Your task to perform on an android device: Do I have any events this weekend? Image 0: 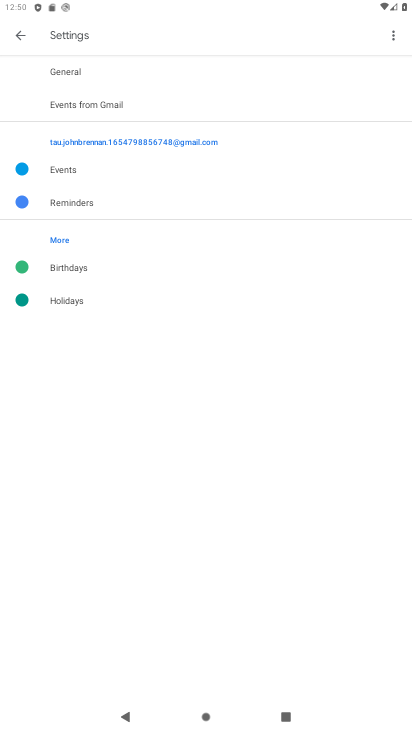
Step 0: press home button
Your task to perform on an android device: Do I have any events this weekend? Image 1: 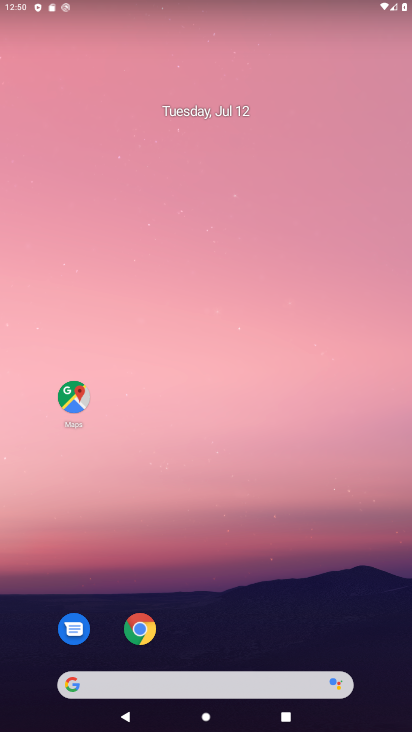
Step 1: drag from (218, 641) to (246, 36)
Your task to perform on an android device: Do I have any events this weekend? Image 2: 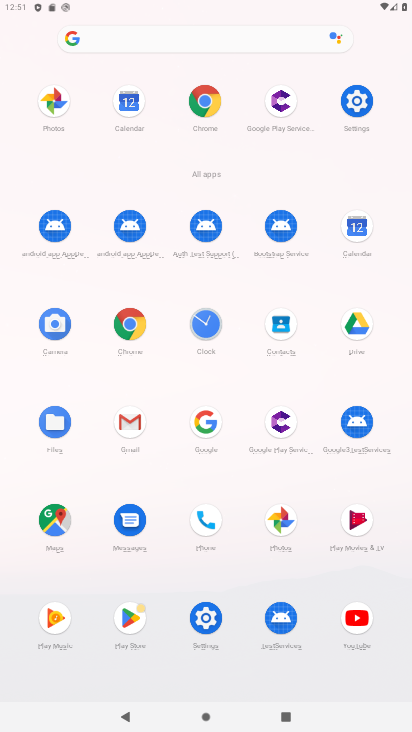
Step 2: click (352, 227)
Your task to perform on an android device: Do I have any events this weekend? Image 3: 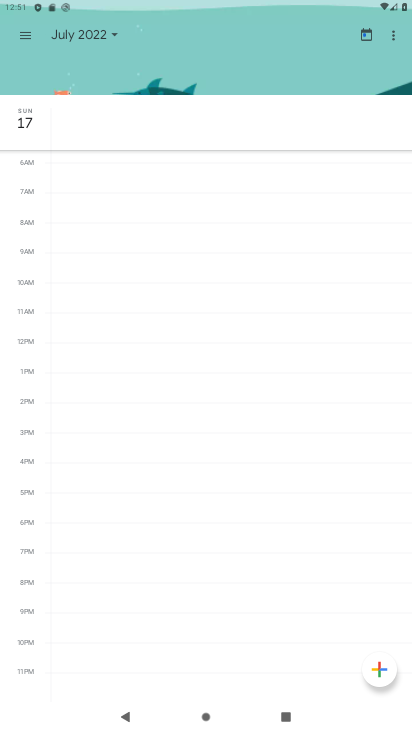
Step 3: click (27, 36)
Your task to perform on an android device: Do I have any events this weekend? Image 4: 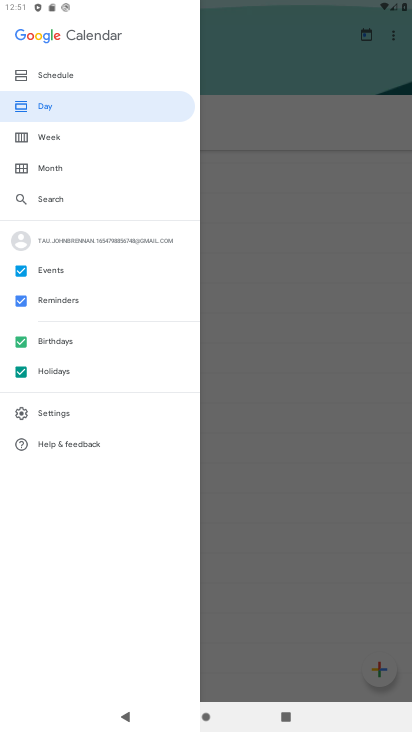
Step 4: click (49, 131)
Your task to perform on an android device: Do I have any events this weekend? Image 5: 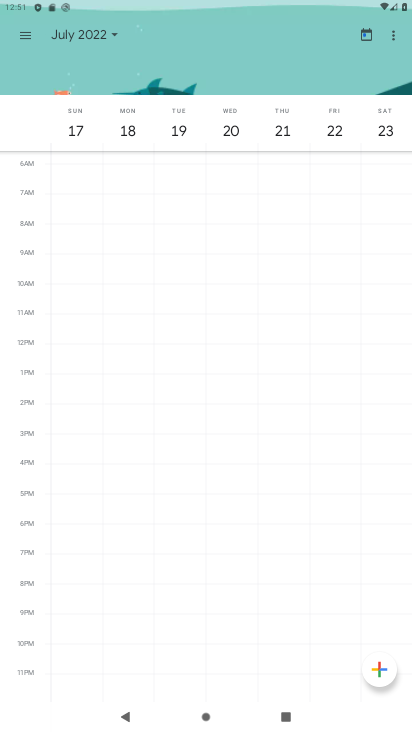
Step 5: click (20, 40)
Your task to perform on an android device: Do I have any events this weekend? Image 6: 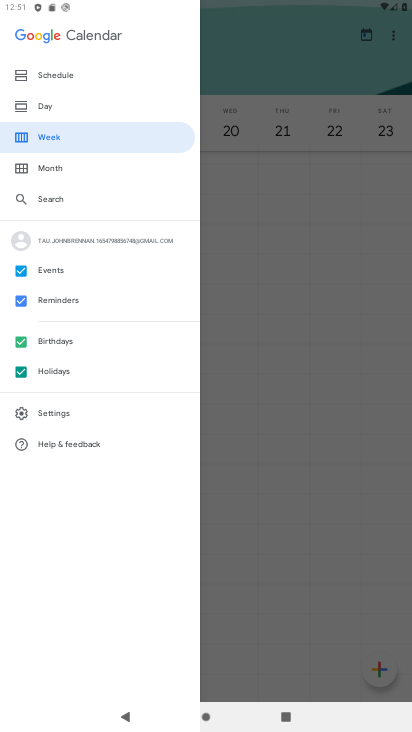
Step 6: click (60, 138)
Your task to perform on an android device: Do I have any events this weekend? Image 7: 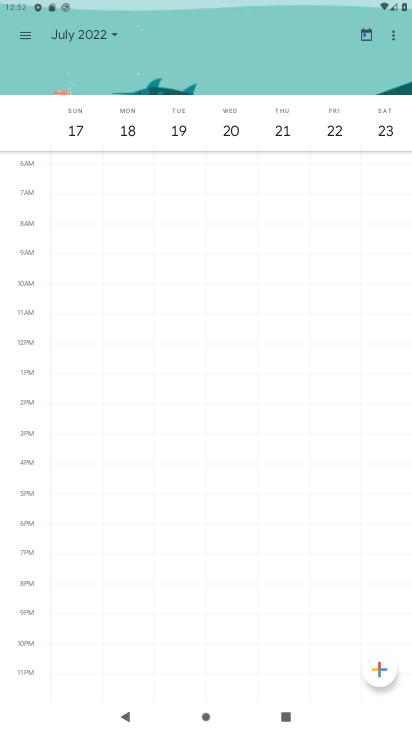
Step 7: task complete